Your task to perform on an android device: How big is a lion? Image 0: 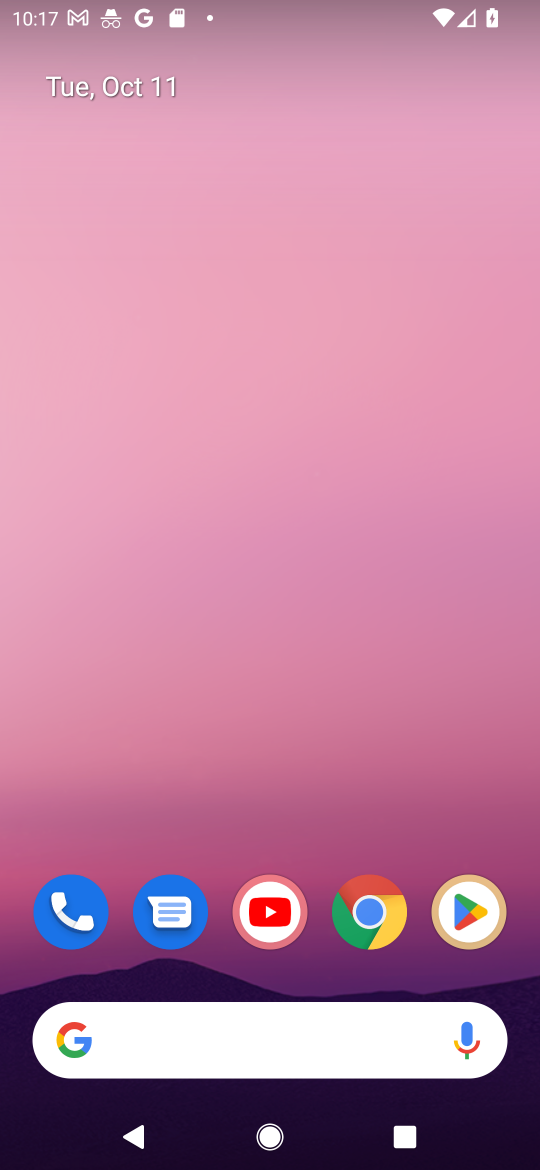
Step 0: click (371, 921)
Your task to perform on an android device: How big is a lion? Image 1: 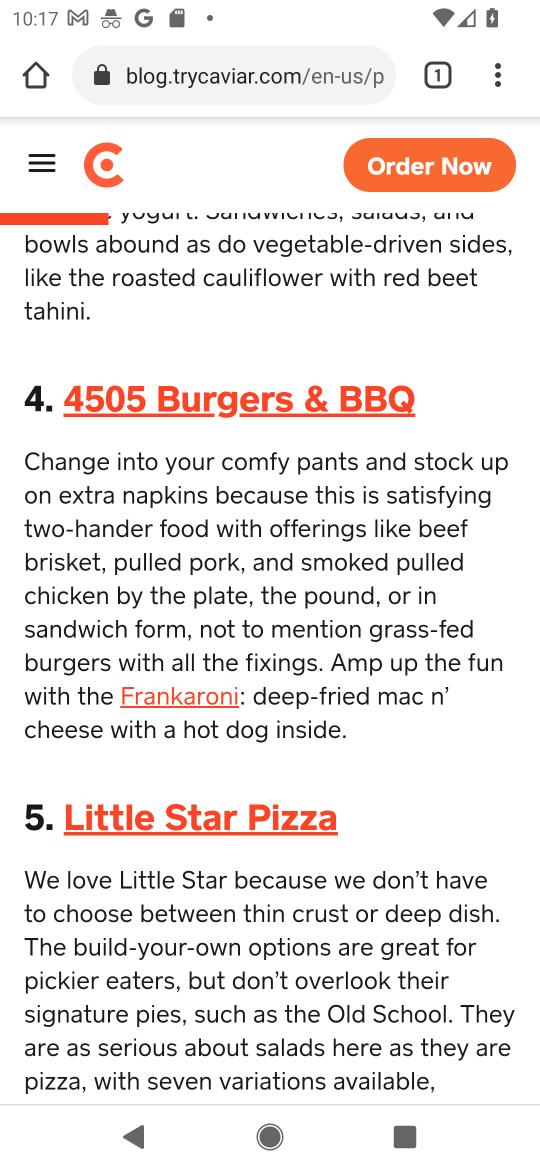
Step 1: click (257, 48)
Your task to perform on an android device: How big is a lion? Image 2: 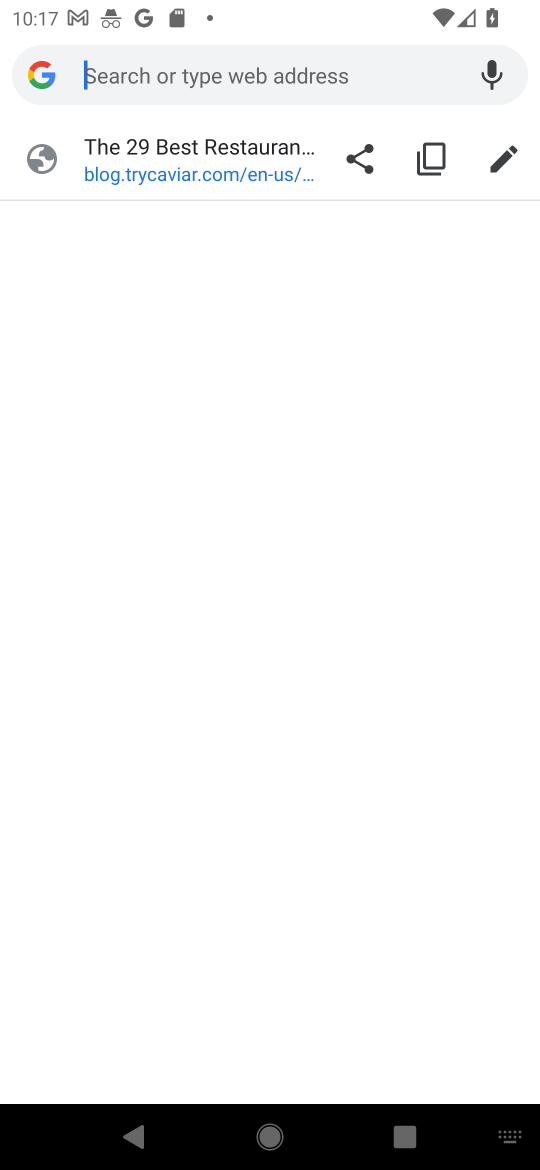
Step 2: type "big is a lion?"
Your task to perform on an android device: How big is a lion? Image 3: 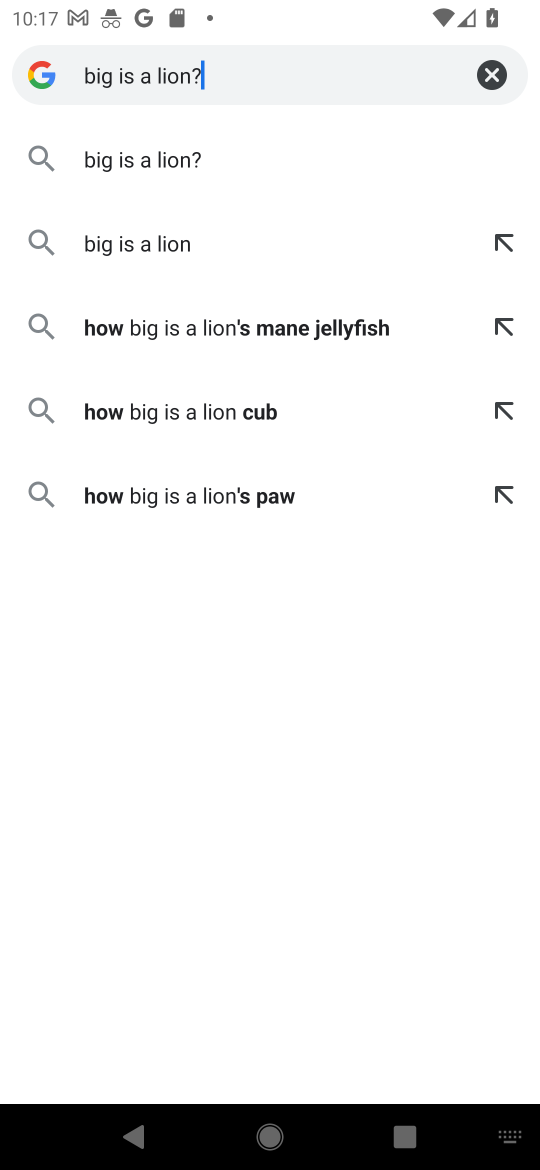
Step 3: click (130, 162)
Your task to perform on an android device: How big is a lion? Image 4: 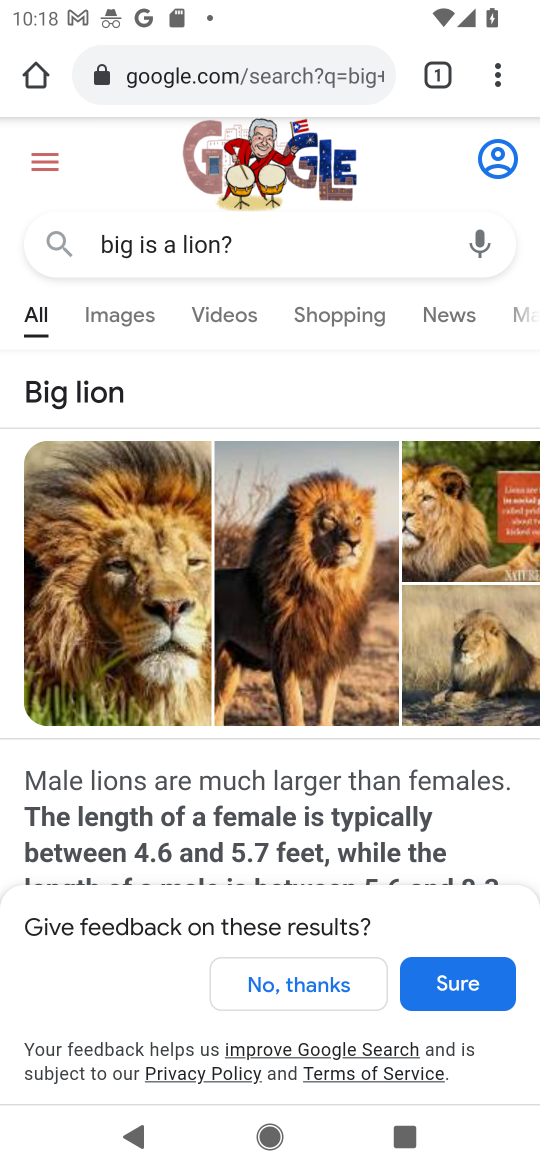
Step 4: click (284, 981)
Your task to perform on an android device: How big is a lion? Image 5: 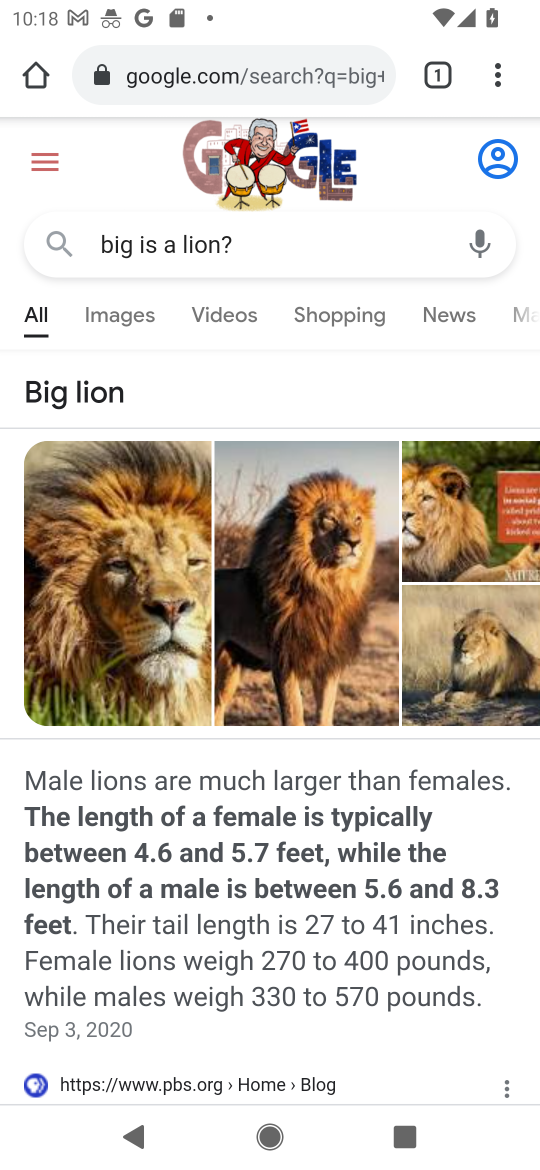
Step 5: task complete